Your task to perform on an android device: turn notification dots on Image 0: 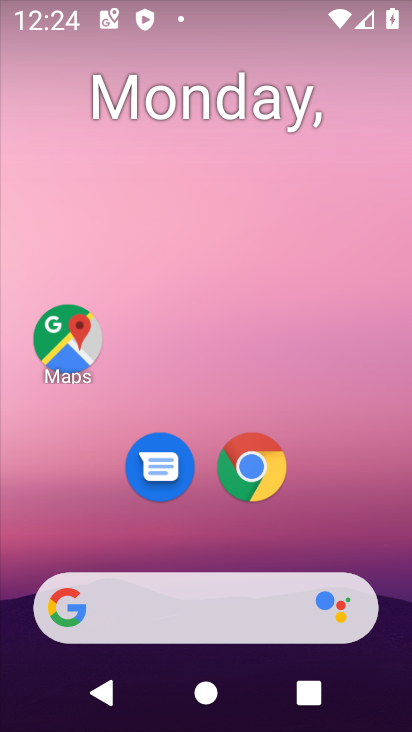
Step 0: drag from (396, 588) to (356, 174)
Your task to perform on an android device: turn notification dots on Image 1: 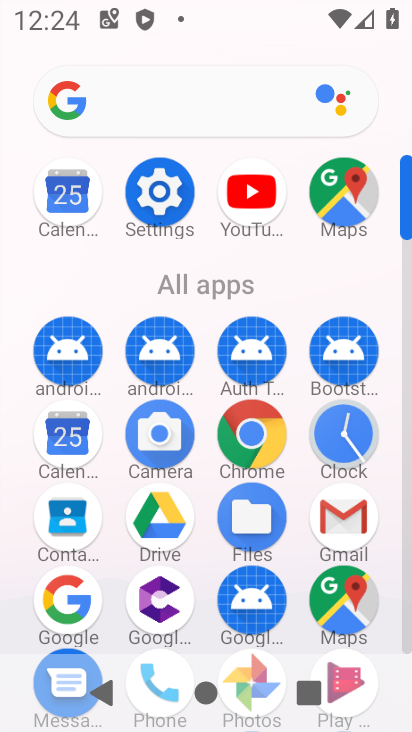
Step 1: click (407, 641)
Your task to perform on an android device: turn notification dots on Image 2: 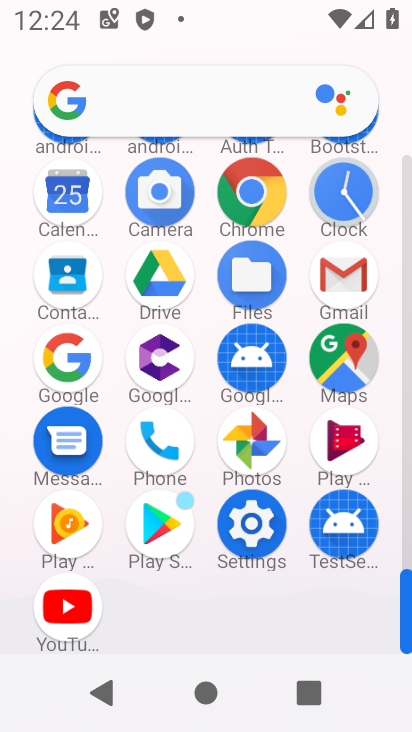
Step 2: click (249, 524)
Your task to perform on an android device: turn notification dots on Image 3: 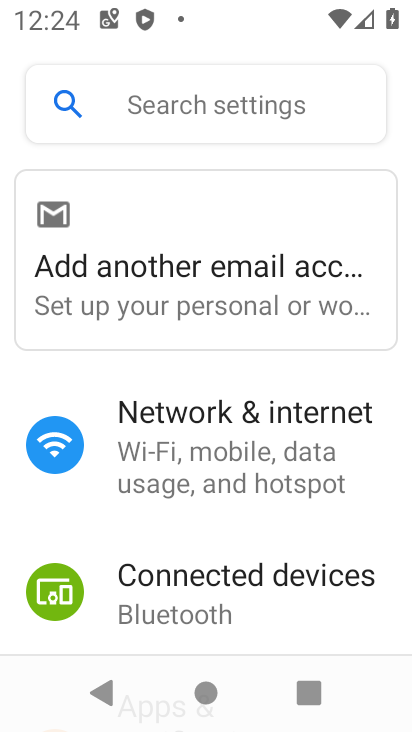
Step 3: drag from (232, 569) to (257, 129)
Your task to perform on an android device: turn notification dots on Image 4: 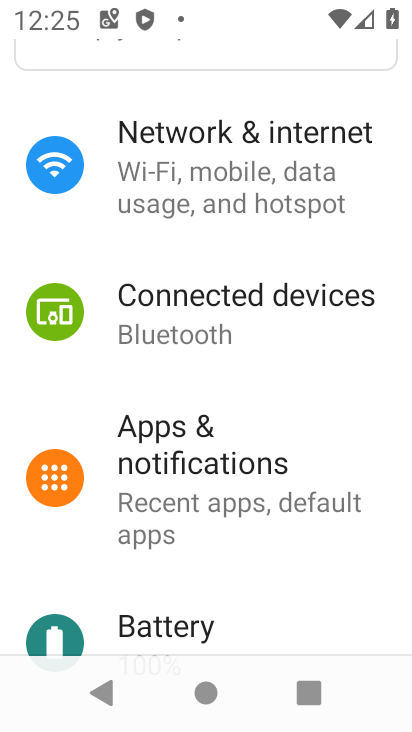
Step 4: drag from (185, 481) to (227, 289)
Your task to perform on an android device: turn notification dots on Image 5: 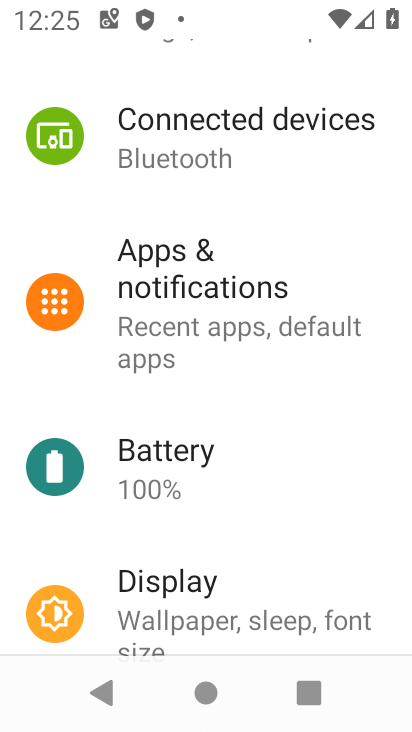
Step 5: click (211, 329)
Your task to perform on an android device: turn notification dots on Image 6: 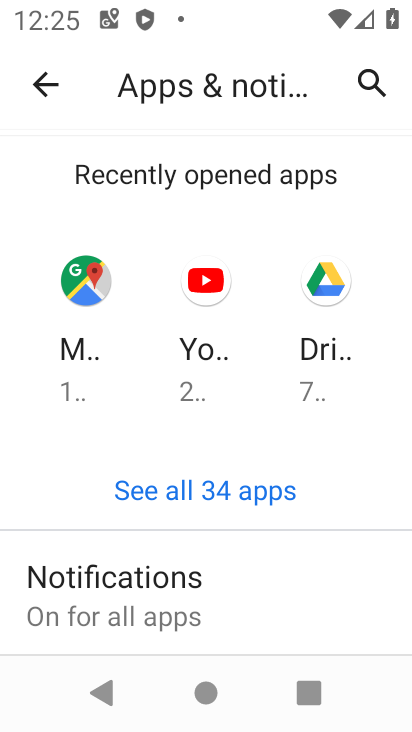
Step 6: drag from (189, 561) to (281, 186)
Your task to perform on an android device: turn notification dots on Image 7: 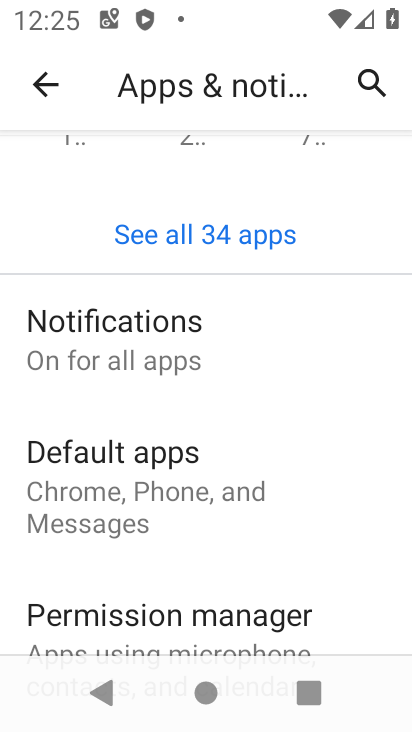
Step 7: drag from (195, 454) to (235, 241)
Your task to perform on an android device: turn notification dots on Image 8: 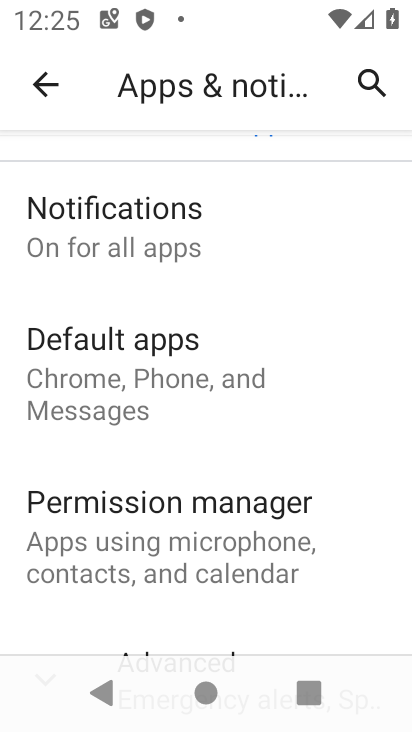
Step 8: click (113, 219)
Your task to perform on an android device: turn notification dots on Image 9: 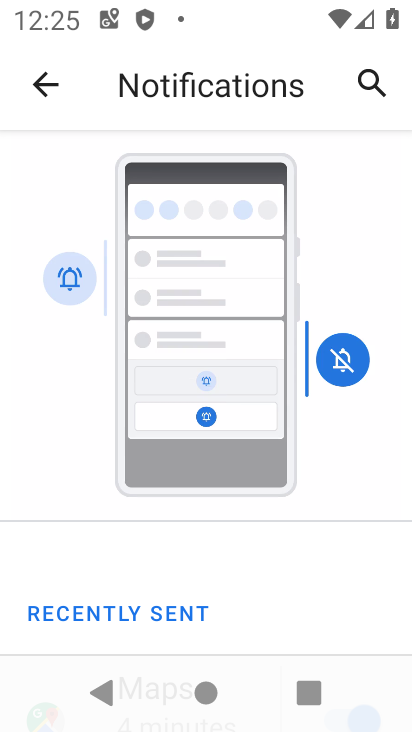
Step 9: drag from (283, 598) to (271, 217)
Your task to perform on an android device: turn notification dots on Image 10: 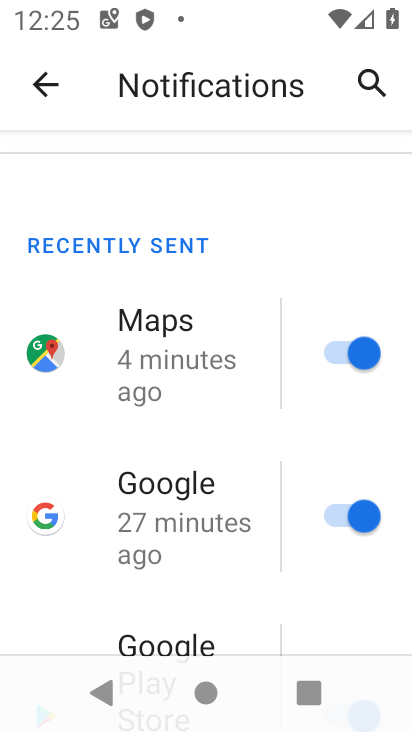
Step 10: drag from (278, 409) to (252, 9)
Your task to perform on an android device: turn notification dots on Image 11: 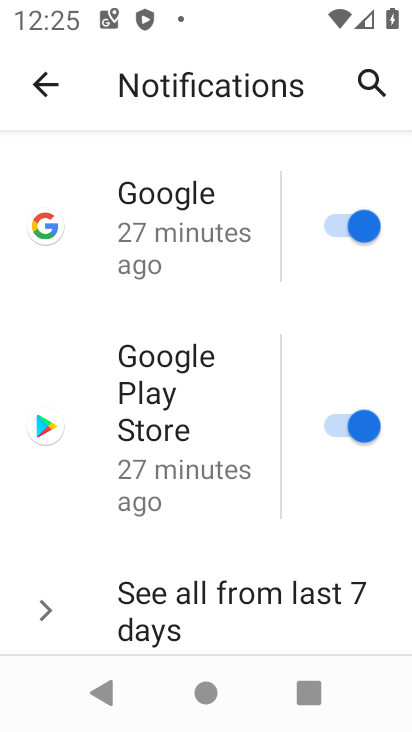
Step 11: drag from (266, 610) to (261, 167)
Your task to perform on an android device: turn notification dots on Image 12: 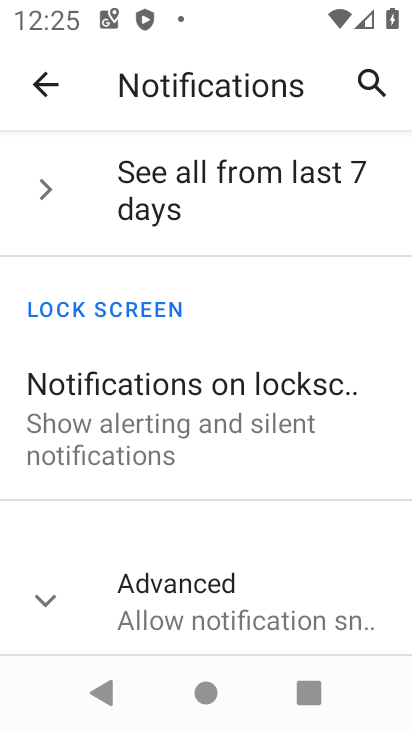
Step 12: click (42, 605)
Your task to perform on an android device: turn notification dots on Image 13: 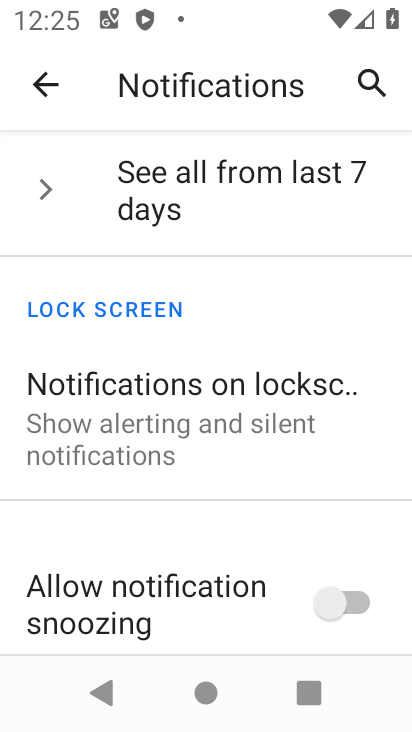
Step 13: task complete